Your task to perform on an android device: choose inbox layout in the gmail app Image 0: 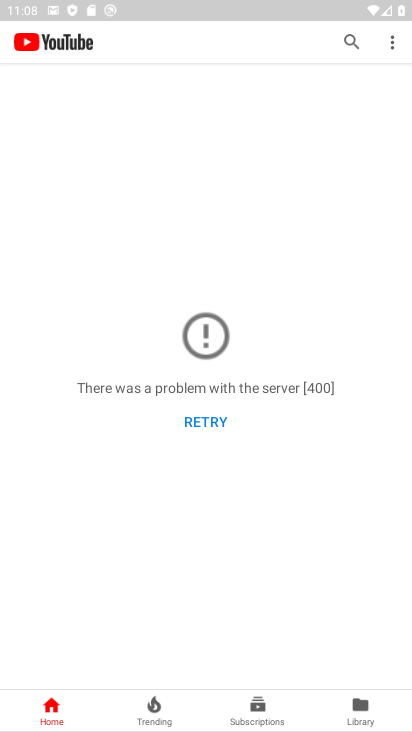
Step 0: press home button
Your task to perform on an android device: choose inbox layout in the gmail app Image 1: 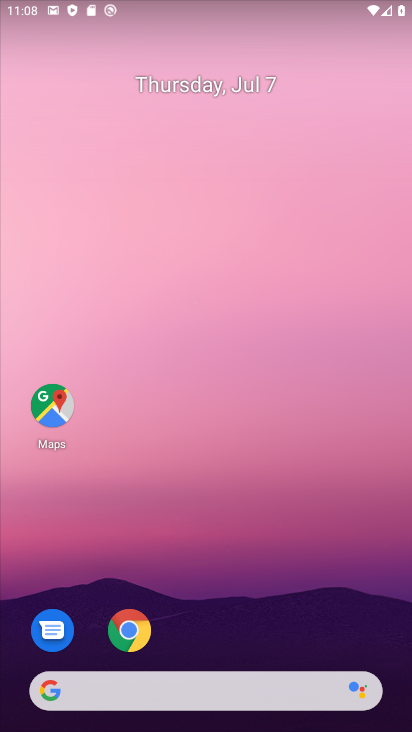
Step 1: drag from (380, 621) to (314, 93)
Your task to perform on an android device: choose inbox layout in the gmail app Image 2: 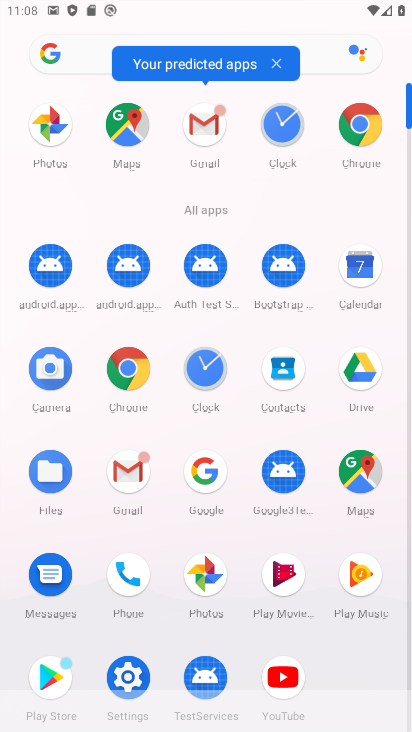
Step 2: click (129, 473)
Your task to perform on an android device: choose inbox layout in the gmail app Image 3: 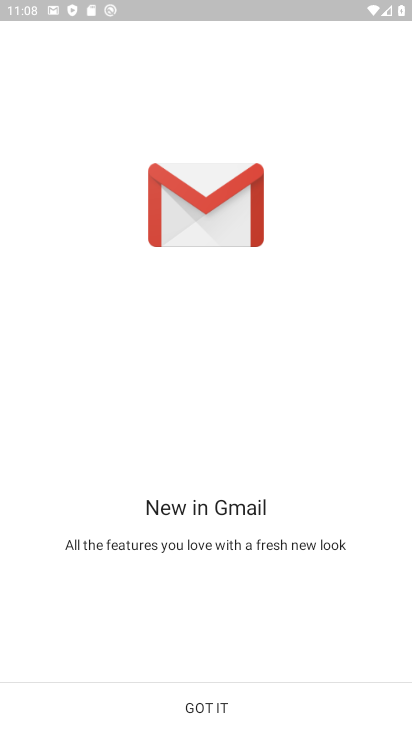
Step 3: click (213, 703)
Your task to perform on an android device: choose inbox layout in the gmail app Image 4: 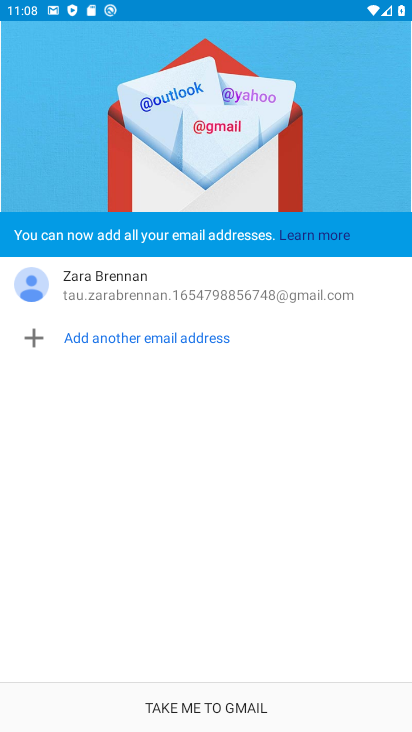
Step 4: click (197, 706)
Your task to perform on an android device: choose inbox layout in the gmail app Image 5: 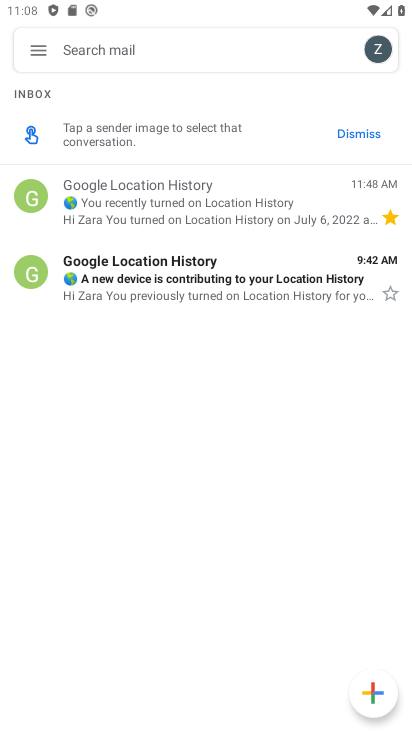
Step 5: click (38, 49)
Your task to perform on an android device: choose inbox layout in the gmail app Image 6: 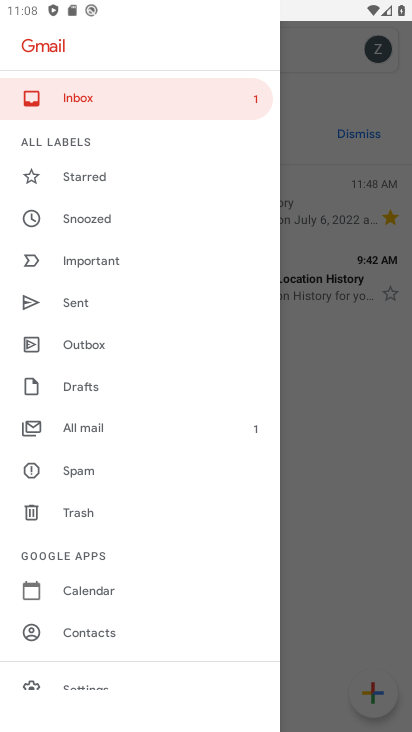
Step 6: drag from (151, 585) to (150, 236)
Your task to perform on an android device: choose inbox layout in the gmail app Image 7: 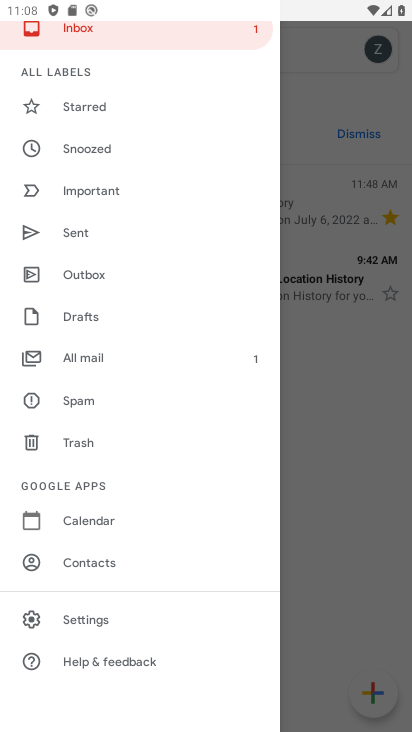
Step 7: click (96, 617)
Your task to perform on an android device: choose inbox layout in the gmail app Image 8: 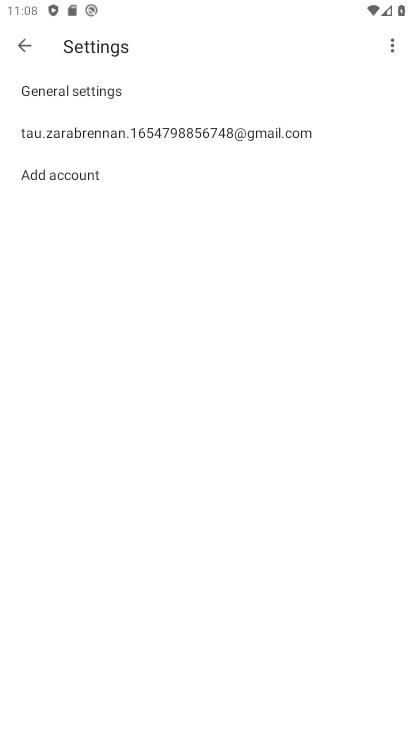
Step 8: click (101, 127)
Your task to perform on an android device: choose inbox layout in the gmail app Image 9: 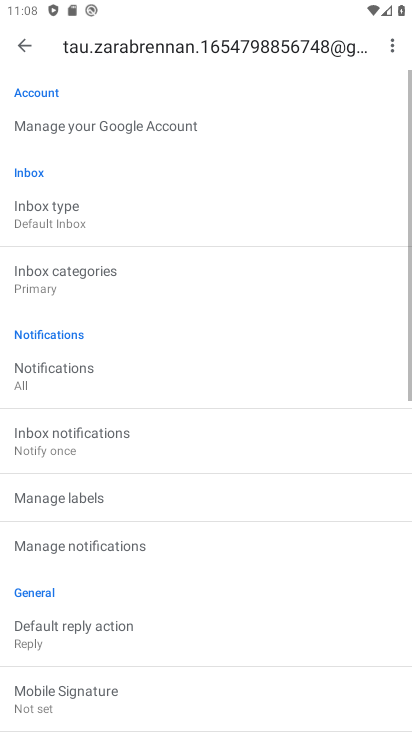
Step 9: click (29, 215)
Your task to perform on an android device: choose inbox layout in the gmail app Image 10: 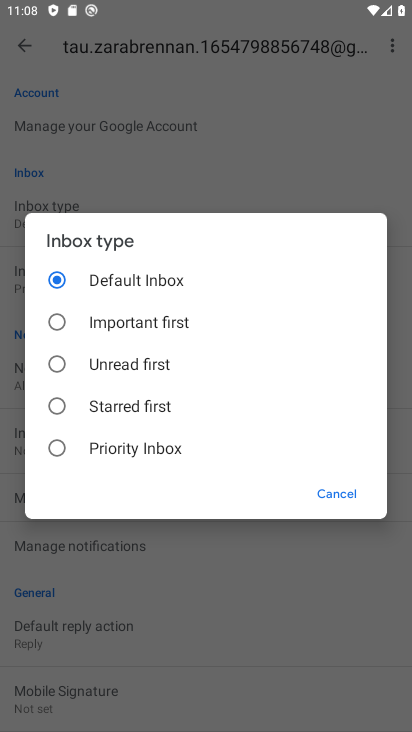
Step 10: click (57, 316)
Your task to perform on an android device: choose inbox layout in the gmail app Image 11: 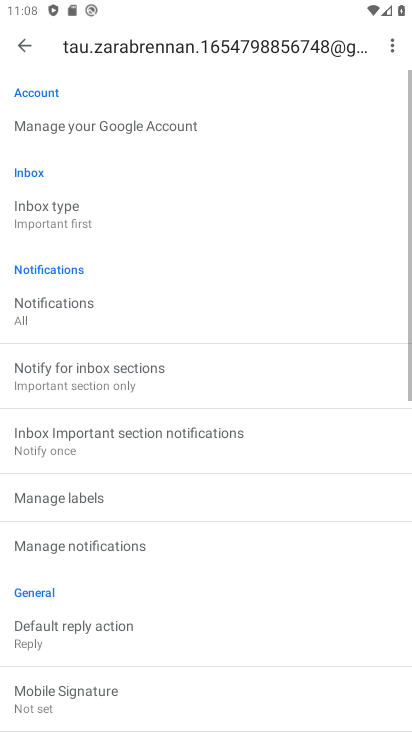
Step 11: task complete